Your task to perform on an android device: turn off improve location accuracy Image 0: 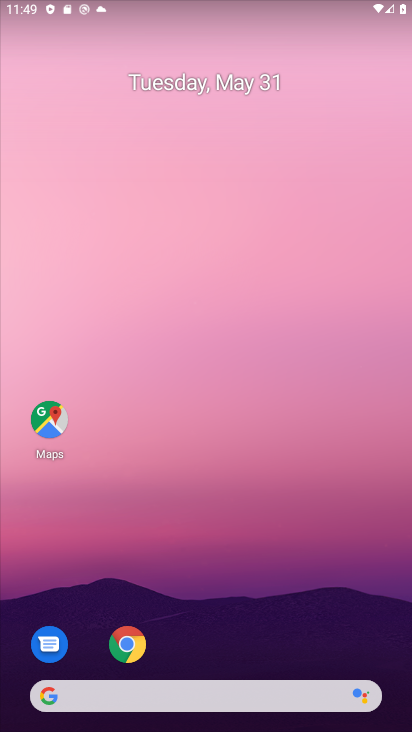
Step 0: drag from (283, 613) to (303, 104)
Your task to perform on an android device: turn off improve location accuracy Image 1: 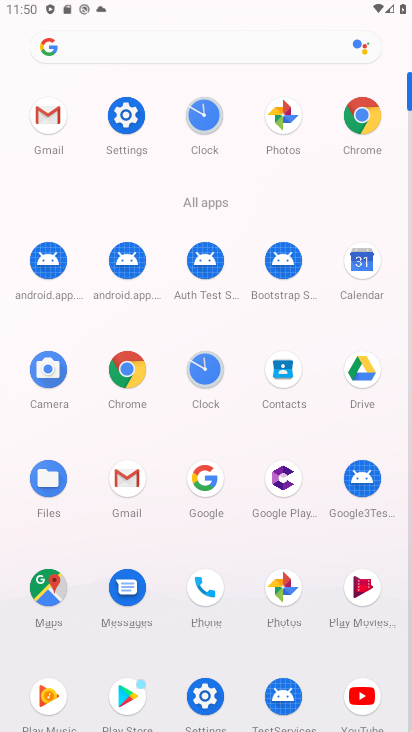
Step 1: click (196, 690)
Your task to perform on an android device: turn off improve location accuracy Image 2: 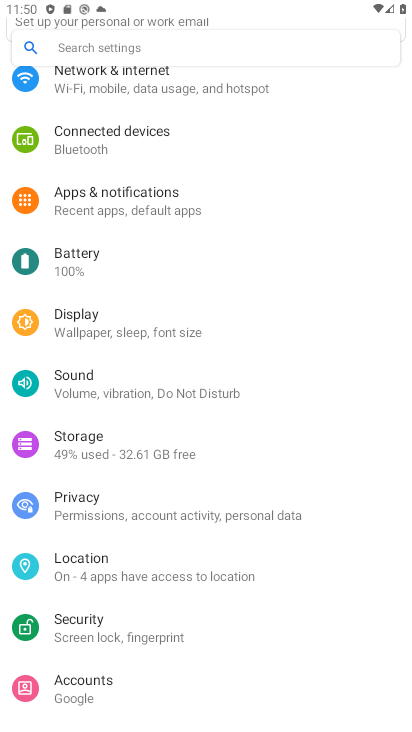
Step 2: click (206, 580)
Your task to perform on an android device: turn off improve location accuracy Image 3: 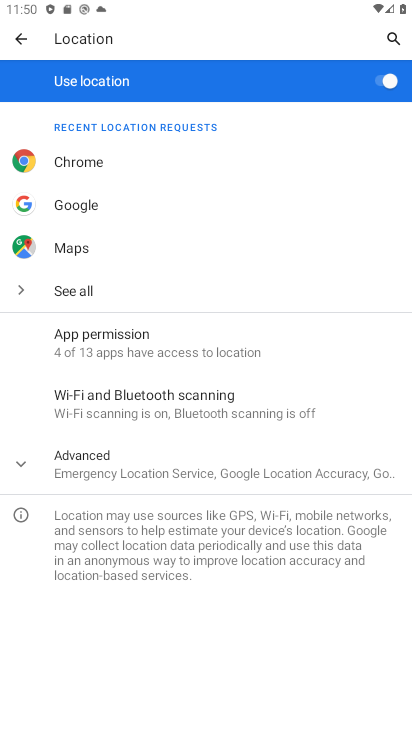
Step 3: click (234, 464)
Your task to perform on an android device: turn off improve location accuracy Image 4: 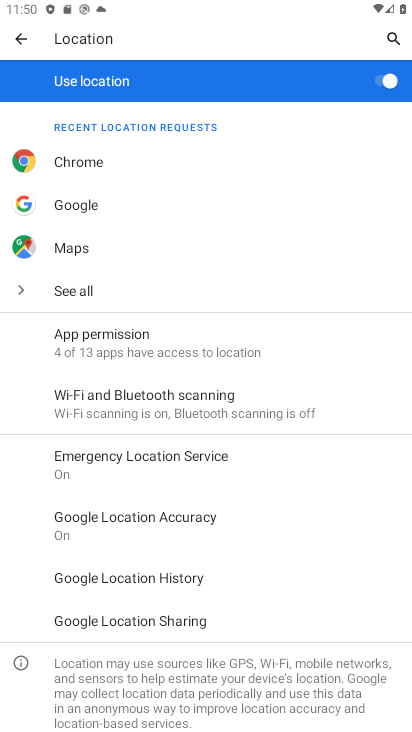
Step 4: click (195, 524)
Your task to perform on an android device: turn off improve location accuracy Image 5: 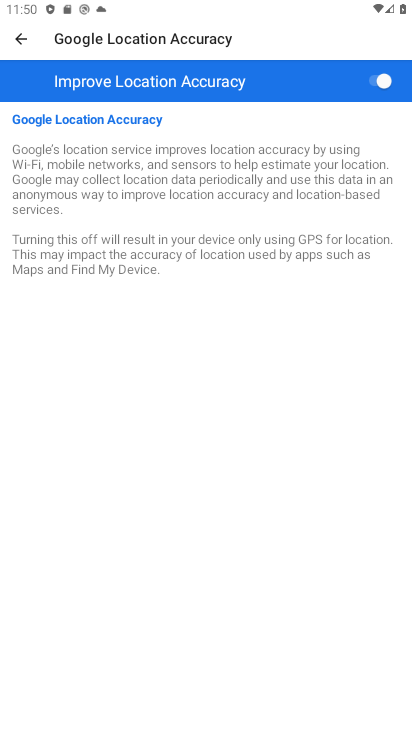
Step 5: click (377, 77)
Your task to perform on an android device: turn off improve location accuracy Image 6: 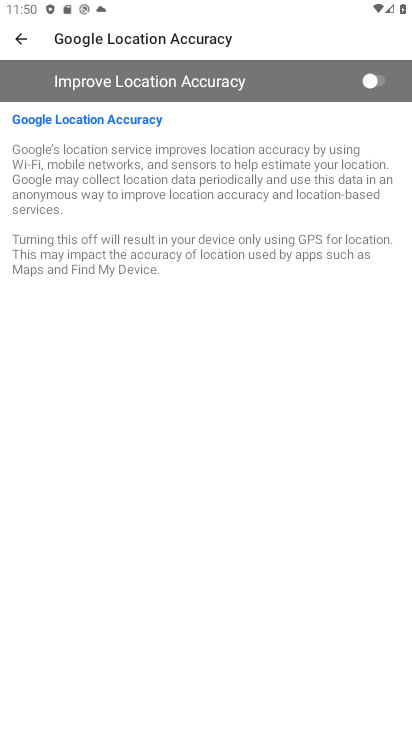
Step 6: task complete